Your task to perform on an android device: Open calendar and show me the second week of next month Image 0: 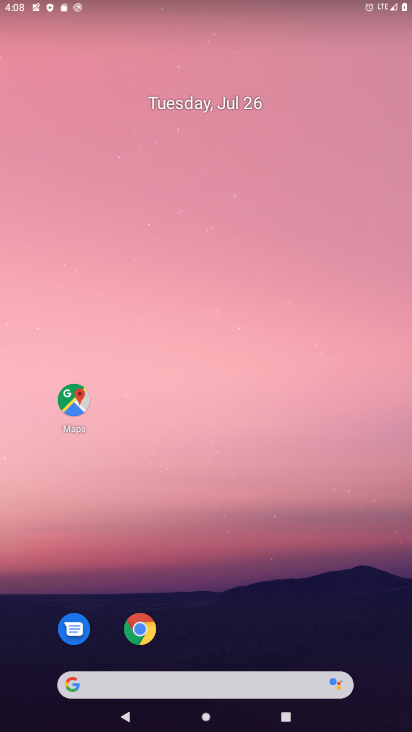
Step 0: drag from (236, 720) to (236, 302)
Your task to perform on an android device: Open calendar and show me the second week of next month Image 1: 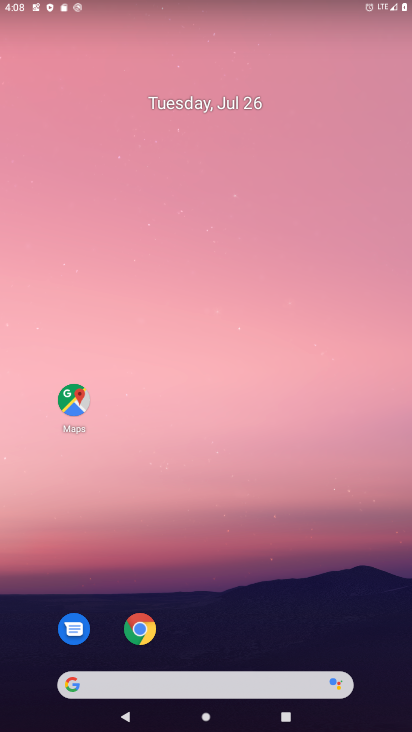
Step 1: drag from (230, 725) to (235, 145)
Your task to perform on an android device: Open calendar and show me the second week of next month Image 2: 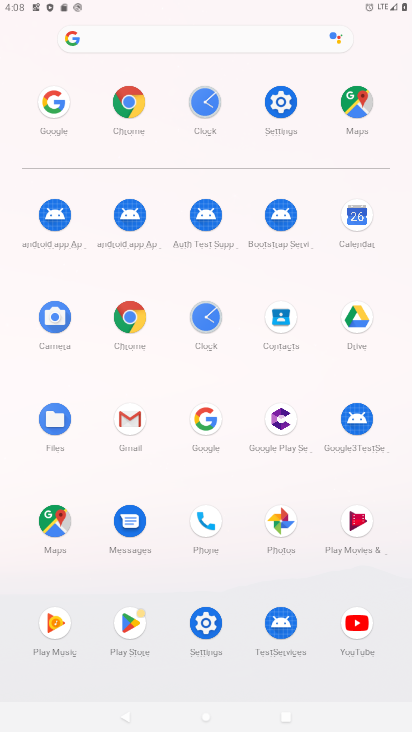
Step 2: click (350, 220)
Your task to perform on an android device: Open calendar and show me the second week of next month Image 3: 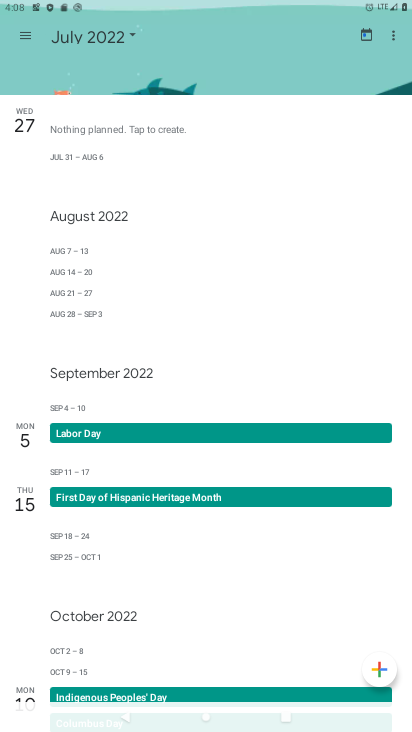
Step 3: click (132, 36)
Your task to perform on an android device: Open calendar and show me the second week of next month Image 4: 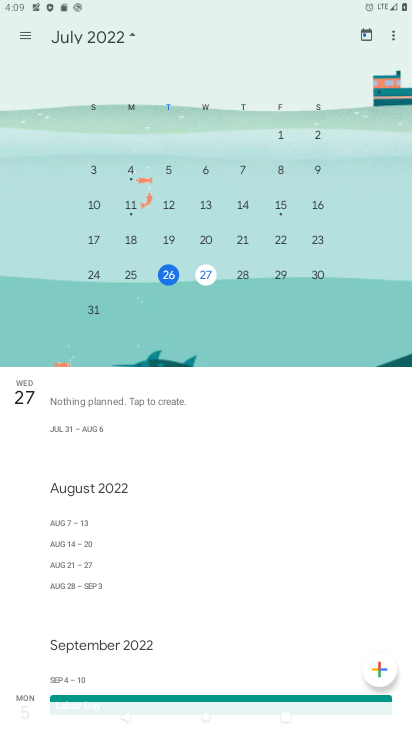
Step 4: drag from (296, 225) to (44, 224)
Your task to perform on an android device: Open calendar and show me the second week of next month Image 5: 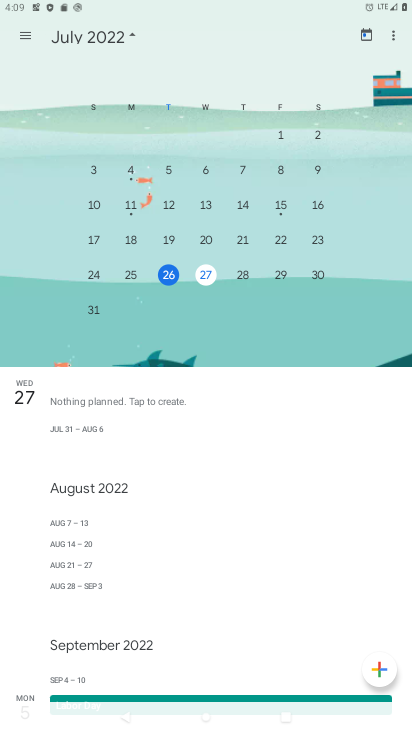
Step 5: drag from (312, 219) to (107, 203)
Your task to perform on an android device: Open calendar and show me the second week of next month Image 6: 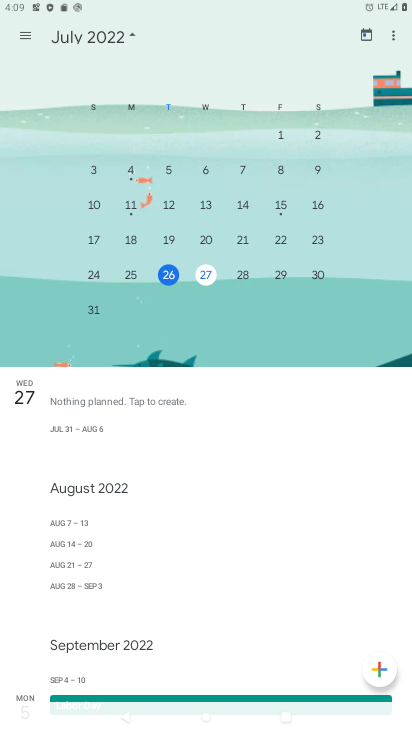
Step 6: drag from (357, 231) to (52, 235)
Your task to perform on an android device: Open calendar and show me the second week of next month Image 7: 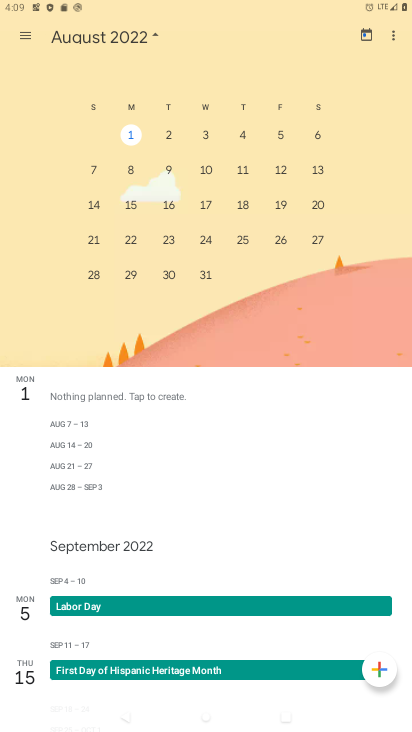
Step 7: click (130, 172)
Your task to perform on an android device: Open calendar and show me the second week of next month Image 8: 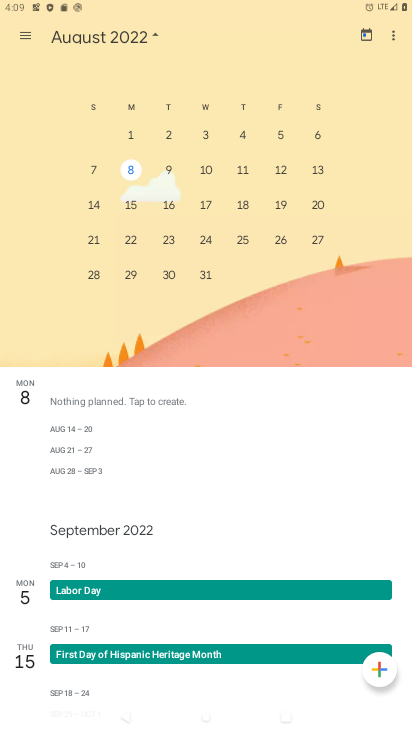
Step 8: click (24, 29)
Your task to perform on an android device: Open calendar and show me the second week of next month Image 9: 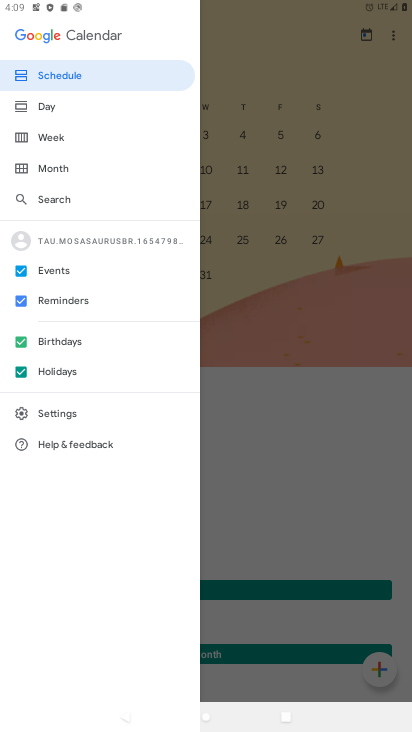
Step 9: click (61, 133)
Your task to perform on an android device: Open calendar and show me the second week of next month Image 10: 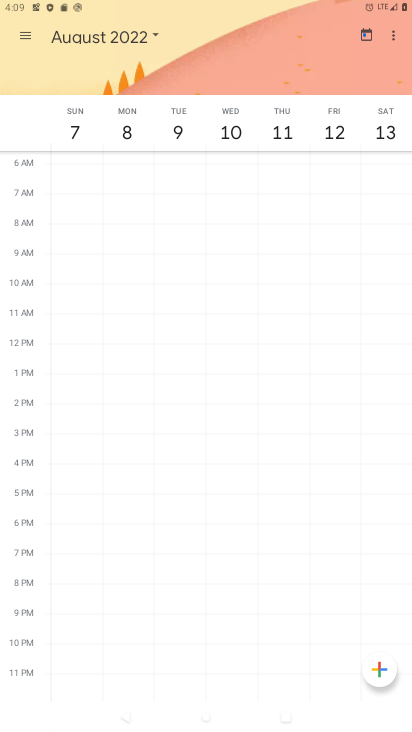
Step 10: task complete